Your task to perform on an android device: Open calendar and show me the first week of next month Image 0: 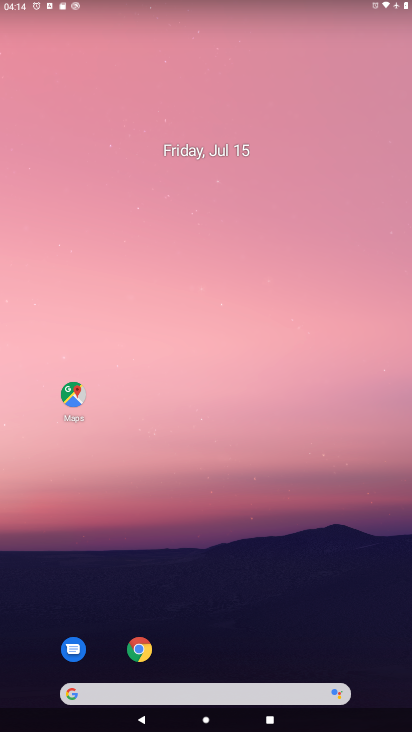
Step 0: drag from (382, 663) to (314, 69)
Your task to perform on an android device: Open calendar and show me the first week of next month Image 1: 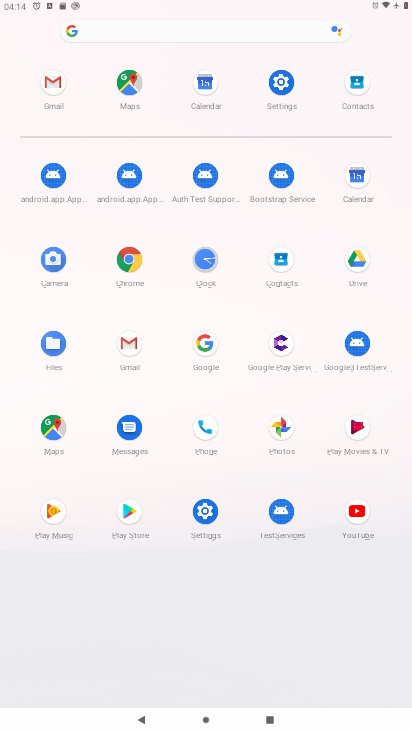
Step 1: click (357, 176)
Your task to perform on an android device: Open calendar and show me the first week of next month Image 2: 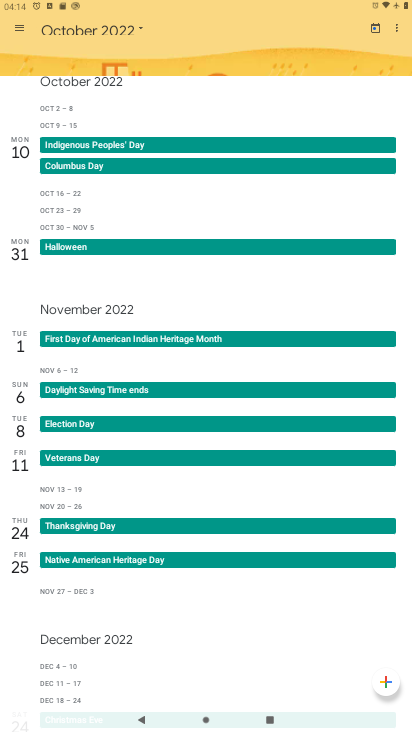
Step 2: click (18, 22)
Your task to perform on an android device: Open calendar and show me the first week of next month Image 3: 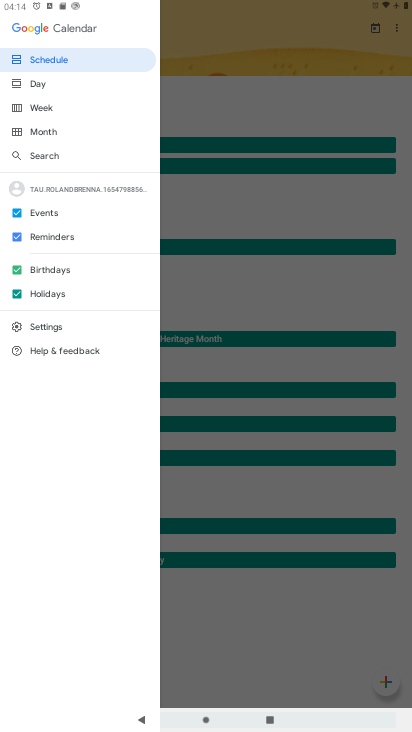
Step 3: click (38, 110)
Your task to perform on an android device: Open calendar and show me the first week of next month Image 4: 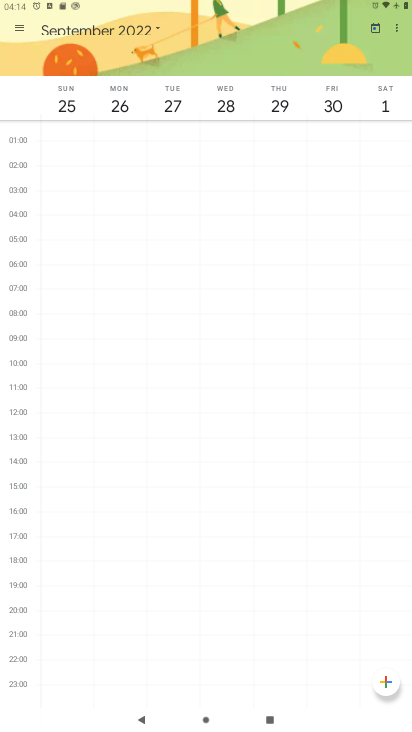
Step 4: click (150, 29)
Your task to perform on an android device: Open calendar and show me the first week of next month Image 5: 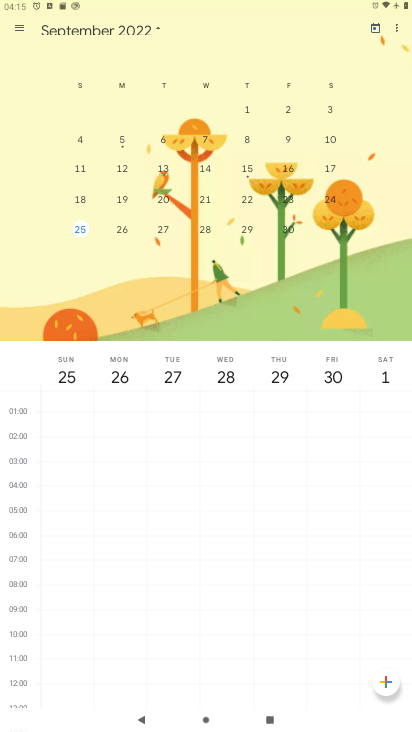
Step 5: drag from (77, 200) to (369, 196)
Your task to perform on an android device: Open calendar and show me the first week of next month Image 6: 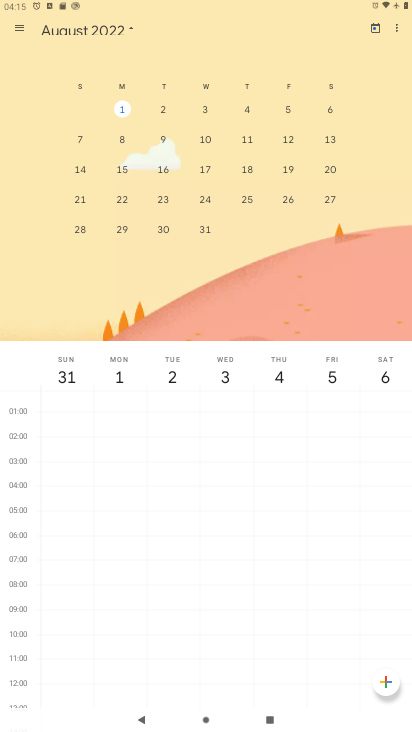
Step 6: click (73, 196)
Your task to perform on an android device: Open calendar and show me the first week of next month Image 7: 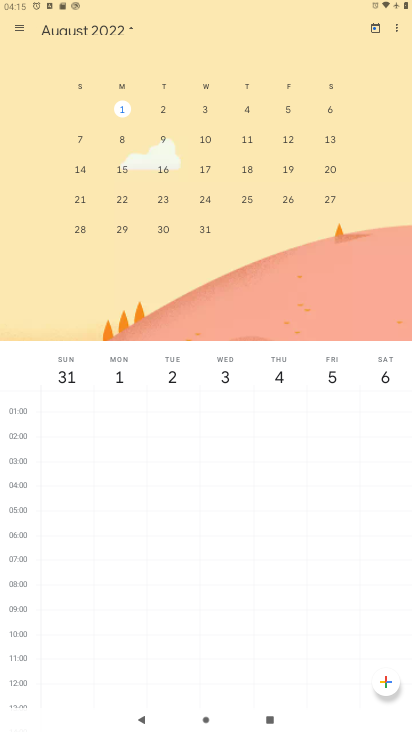
Step 7: click (79, 141)
Your task to perform on an android device: Open calendar and show me the first week of next month Image 8: 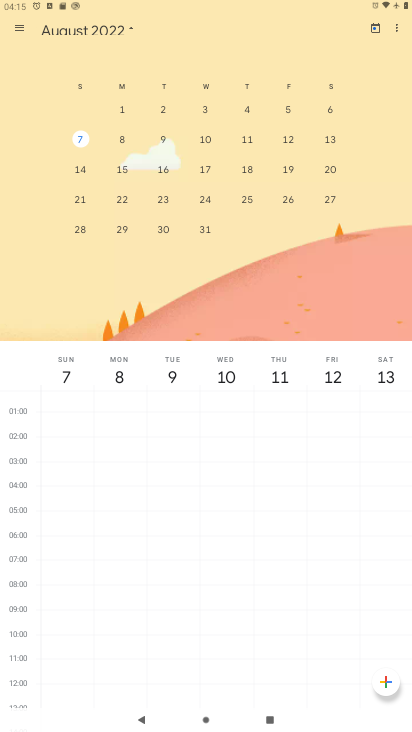
Step 8: task complete